Your task to perform on an android device: Search for sushi restaurants on Maps Image 0: 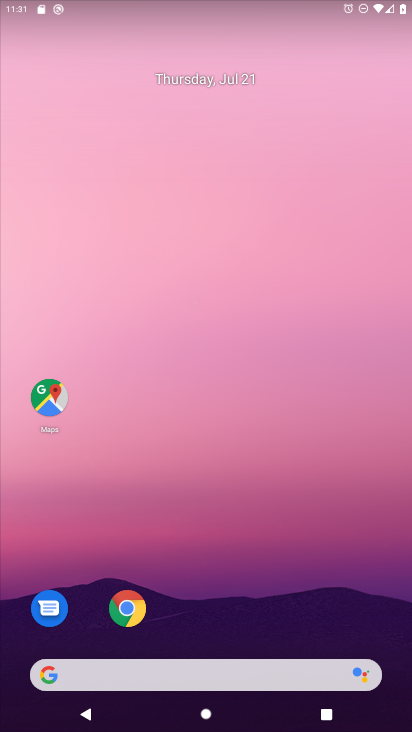
Step 0: drag from (384, 618) to (248, 30)
Your task to perform on an android device: Search for sushi restaurants on Maps Image 1: 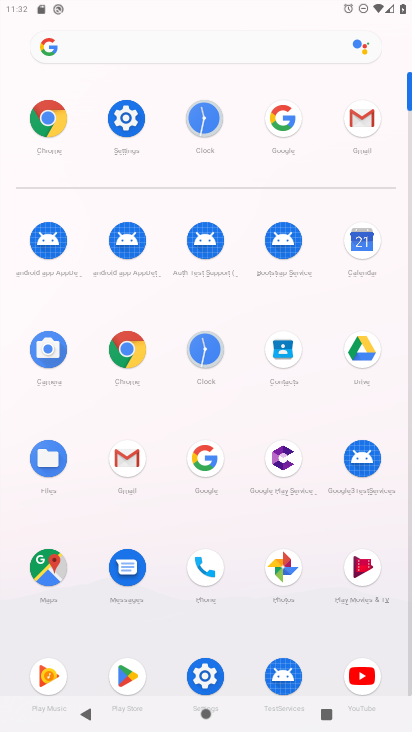
Step 1: click (57, 556)
Your task to perform on an android device: Search for sushi restaurants on Maps Image 2: 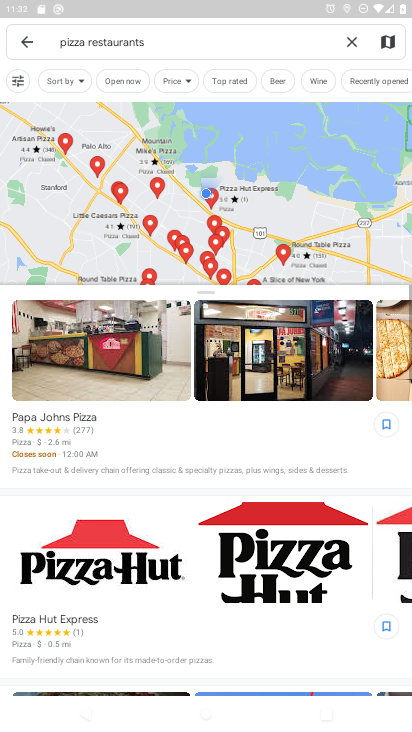
Step 2: click (353, 47)
Your task to perform on an android device: Search for sushi restaurants on Maps Image 3: 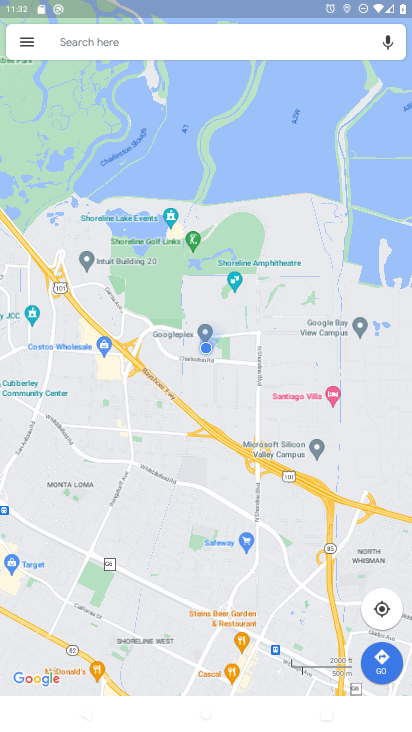
Step 3: click (103, 41)
Your task to perform on an android device: Search for sushi restaurants on Maps Image 4: 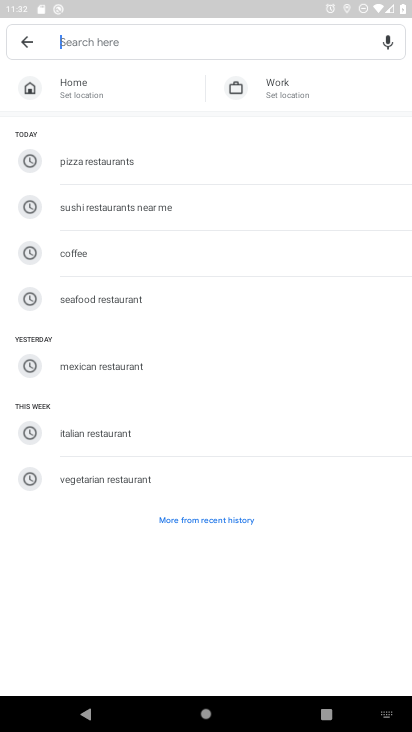
Step 4: type "sushi restaurants"
Your task to perform on an android device: Search for sushi restaurants on Maps Image 5: 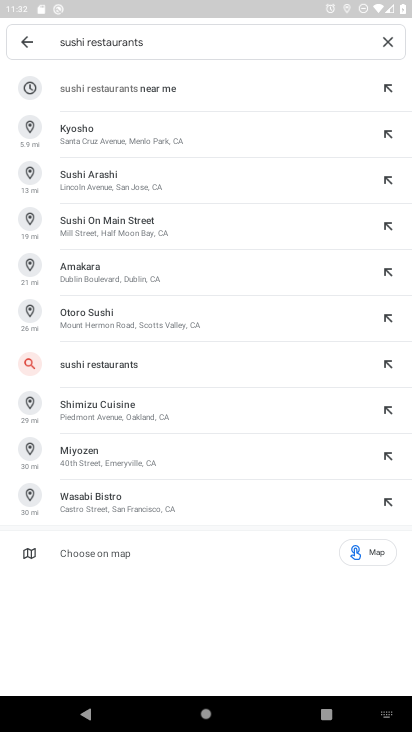
Step 5: click (93, 94)
Your task to perform on an android device: Search for sushi restaurants on Maps Image 6: 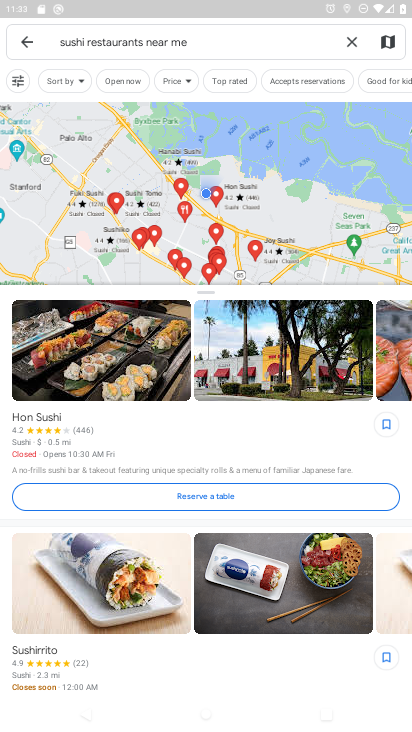
Step 6: task complete